Your task to perform on an android device: Open notification settings Image 0: 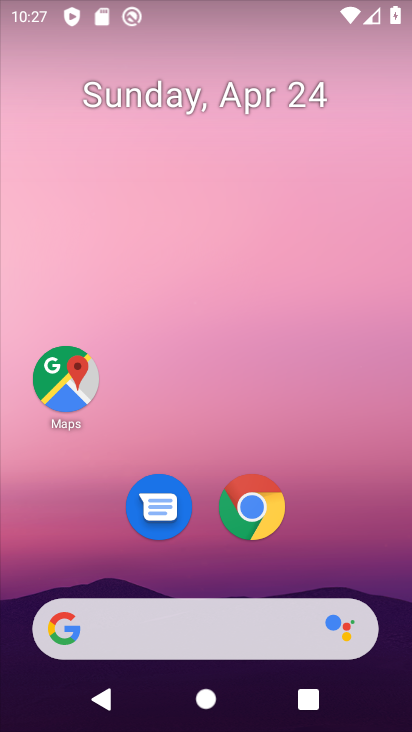
Step 0: drag from (354, 545) to (295, 87)
Your task to perform on an android device: Open notification settings Image 1: 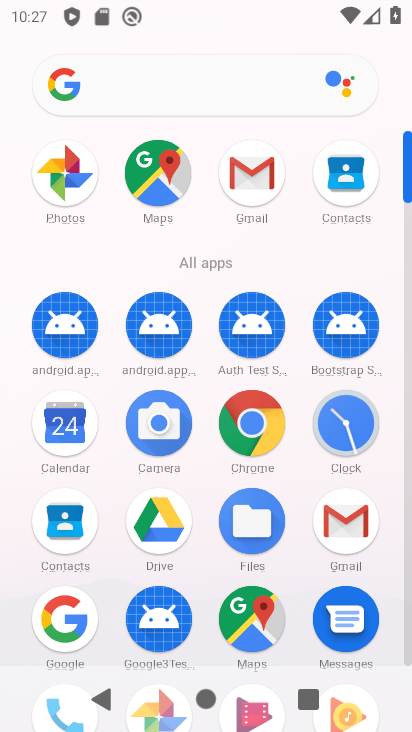
Step 1: drag from (189, 262) to (233, 7)
Your task to perform on an android device: Open notification settings Image 2: 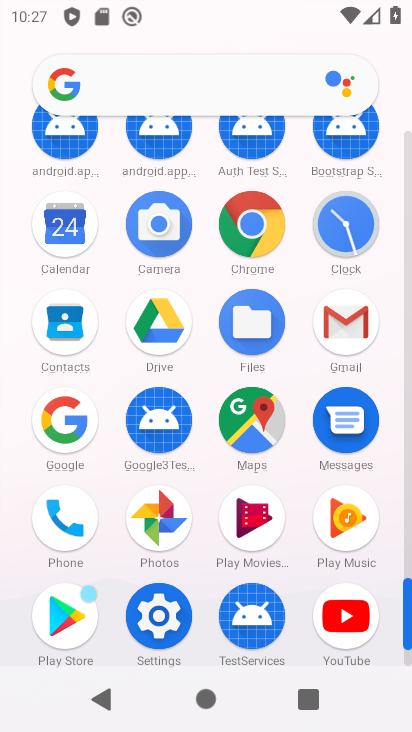
Step 2: click (143, 601)
Your task to perform on an android device: Open notification settings Image 3: 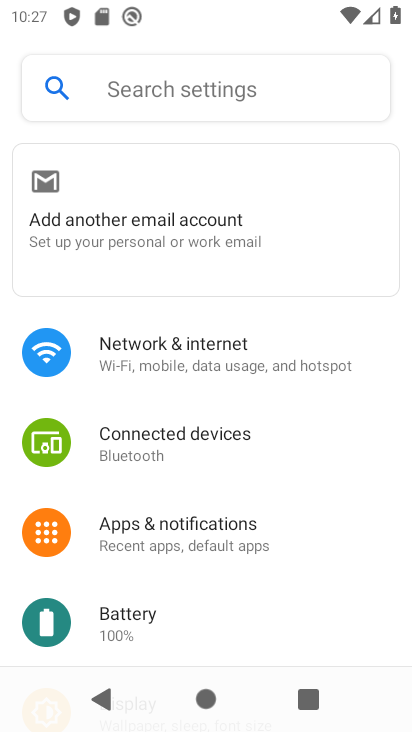
Step 3: click (207, 531)
Your task to perform on an android device: Open notification settings Image 4: 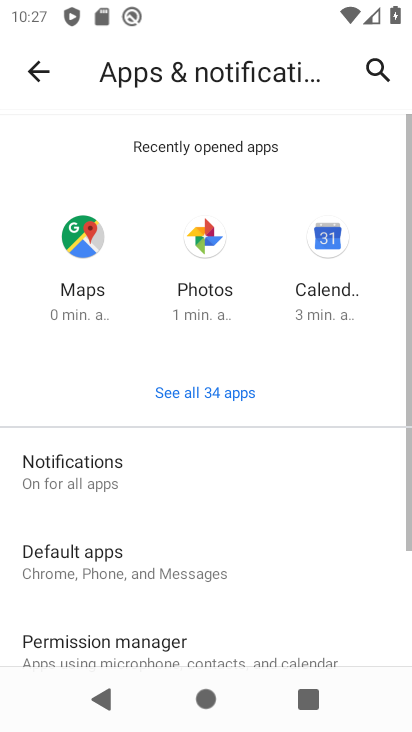
Step 4: click (79, 472)
Your task to perform on an android device: Open notification settings Image 5: 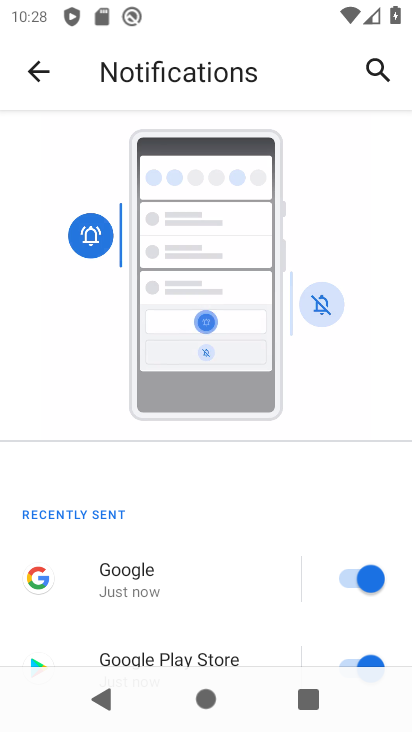
Step 5: task complete